Your task to perform on an android device: turn off airplane mode Image 0: 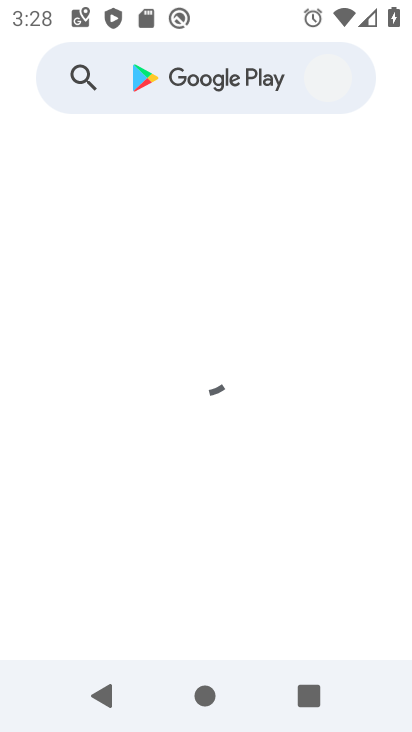
Step 0: drag from (382, 541) to (386, 431)
Your task to perform on an android device: turn off airplane mode Image 1: 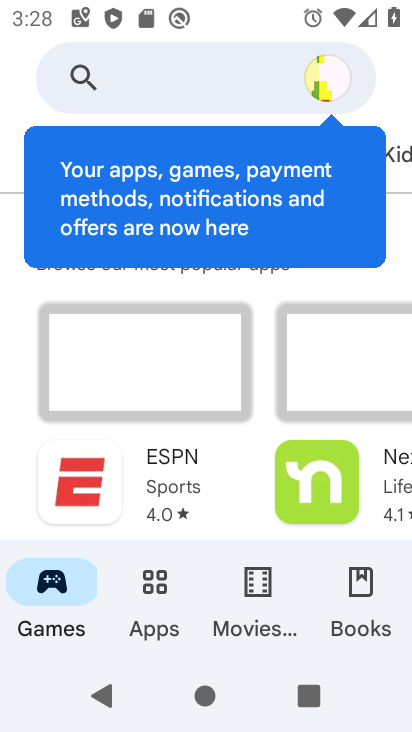
Step 1: press home button
Your task to perform on an android device: turn off airplane mode Image 2: 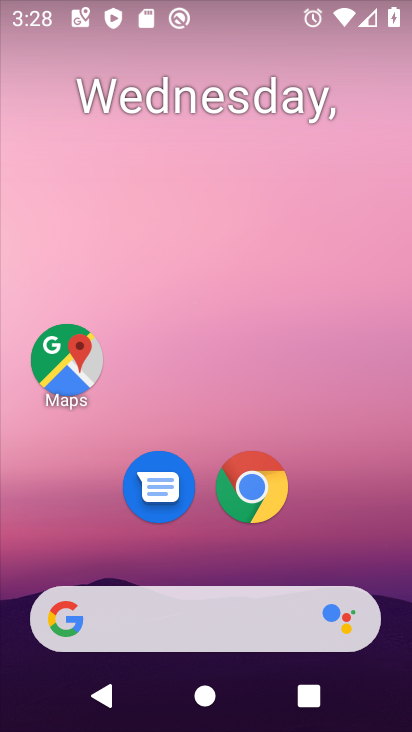
Step 2: drag from (374, 546) to (366, 227)
Your task to perform on an android device: turn off airplane mode Image 3: 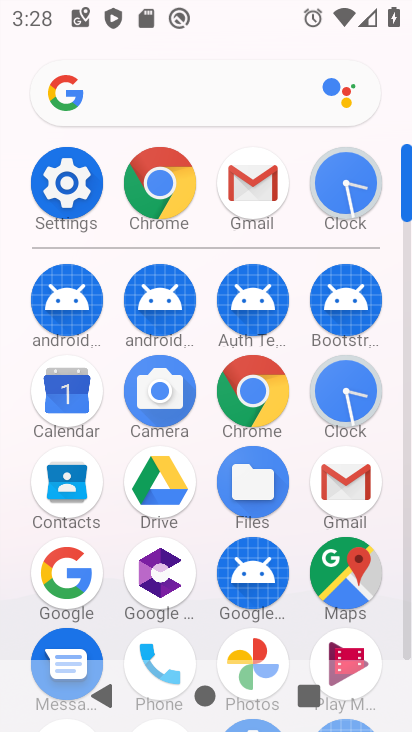
Step 3: drag from (292, 534) to (298, 295)
Your task to perform on an android device: turn off airplane mode Image 4: 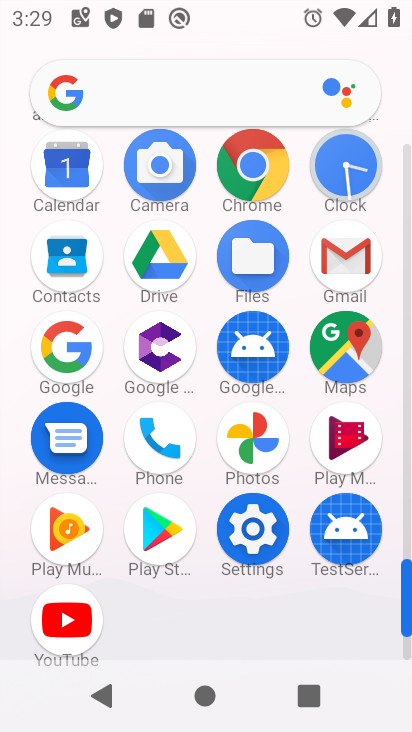
Step 4: click (249, 533)
Your task to perform on an android device: turn off airplane mode Image 5: 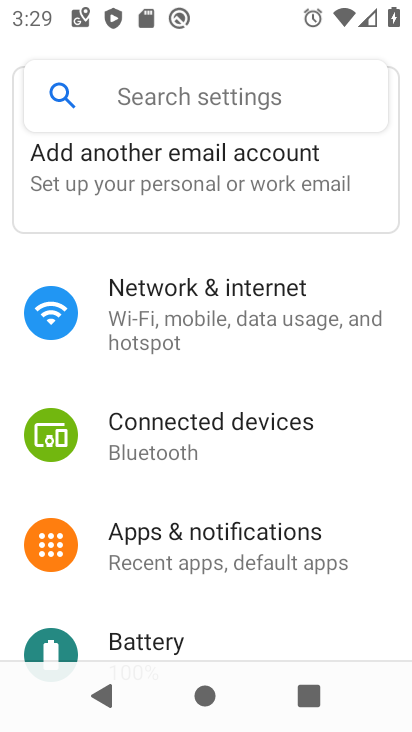
Step 5: drag from (355, 554) to (354, 322)
Your task to perform on an android device: turn off airplane mode Image 6: 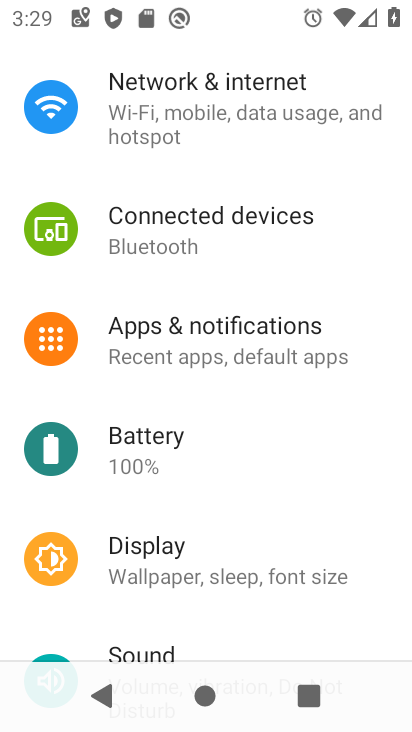
Step 6: drag from (352, 520) to (352, 371)
Your task to perform on an android device: turn off airplane mode Image 7: 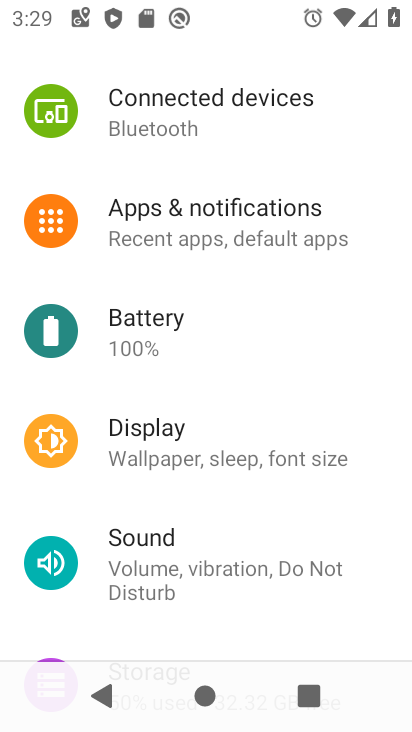
Step 7: drag from (362, 276) to (359, 413)
Your task to perform on an android device: turn off airplane mode Image 8: 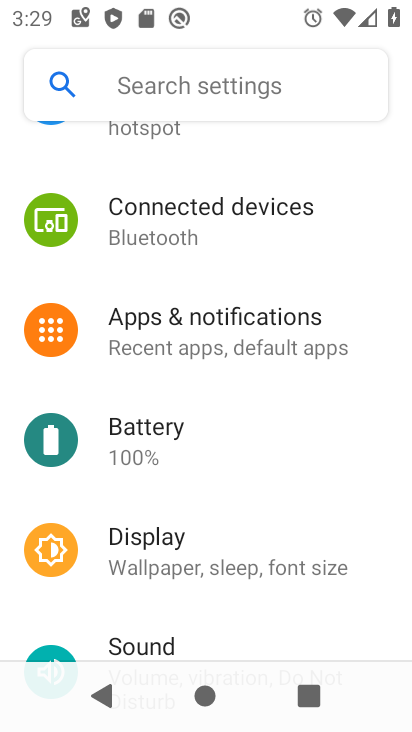
Step 8: drag from (353, 247) to (353, 406)
Your task to perform on an android device: turn off airplane mode Image 9: 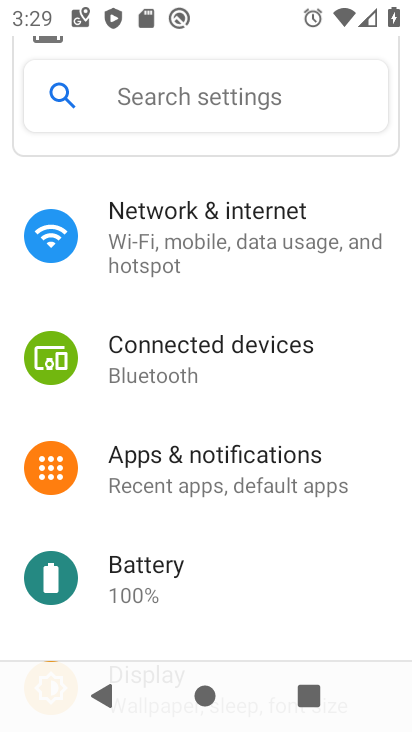
Step 9: drag from (345, 312) to (353, 428)
Your task to perform on an android device: turn off airplane mode Image 10: 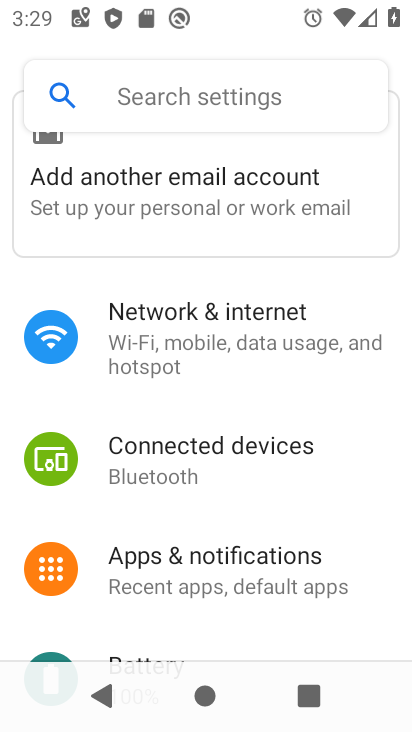
Step 10: click (303, 371)
Your task to perform on an android device: turn off airplane mode Image 11: 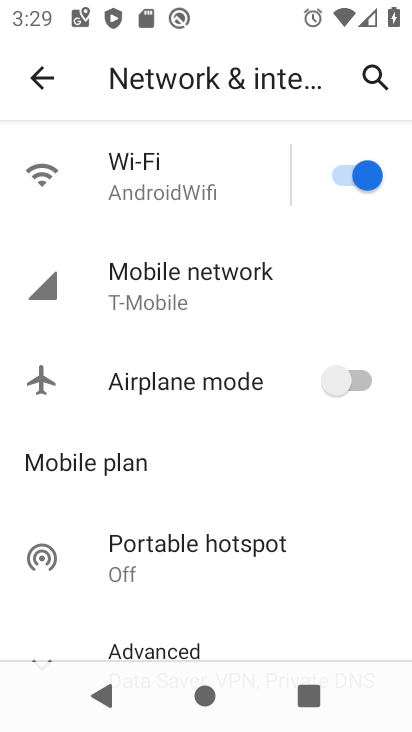
Step 11: task complete